Your task to perform on an android device: Go to CNN.com Image 0: 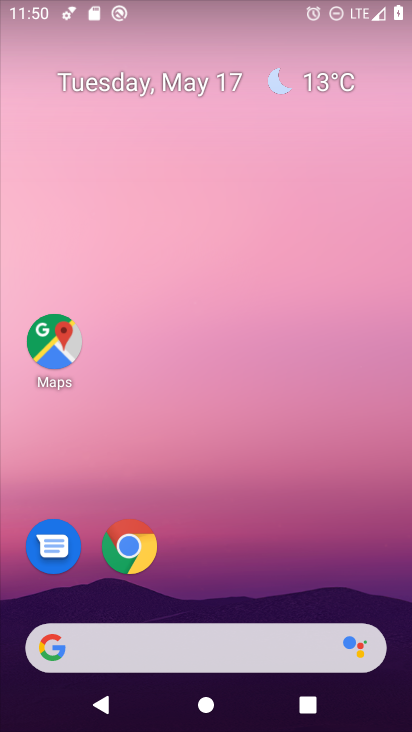
Step 0: click (138, 545)
Your task to perform on an android device: Go to CNN.com Image 1: 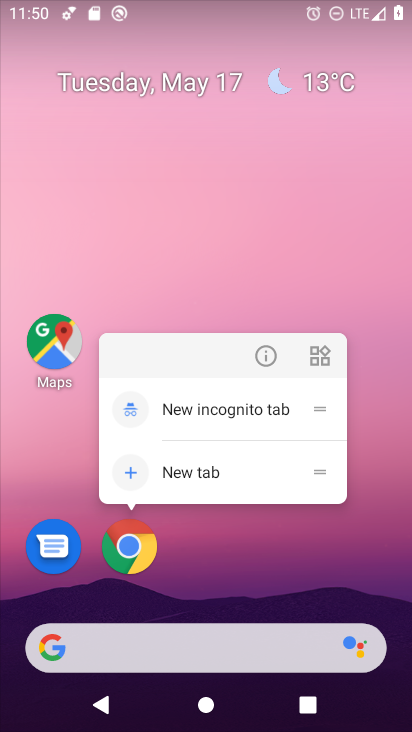
Step 1: click (133, 549)
Your task to perform on an android device: Go to CNN.com Image 2: 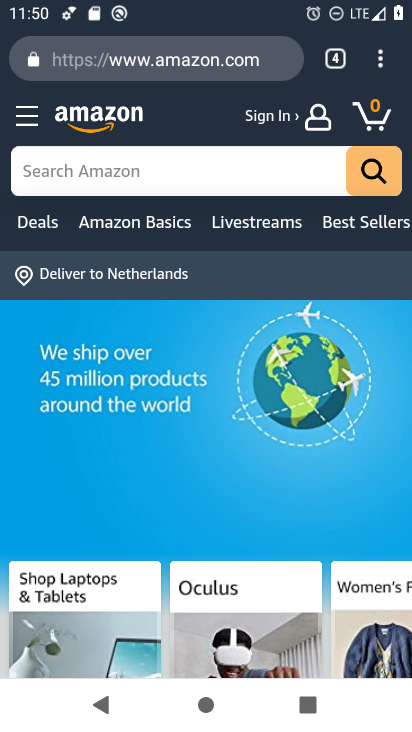
Step 2: click (112, 53)
Your task to perform on an android device: Go to CNN.com Image 3: 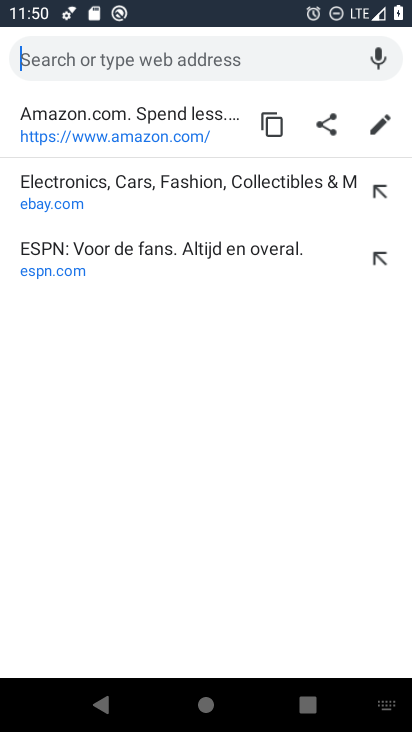
Step 3: type "cnn.com"
Your task to perform on an android device: Go to CNN.com Image 4: 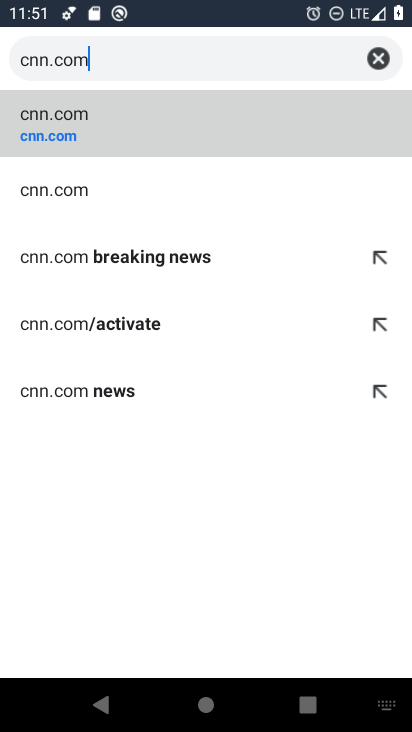
Step 4: click (36, 194)
Your task to perform on an android device: Go to CNN.com Image 5: 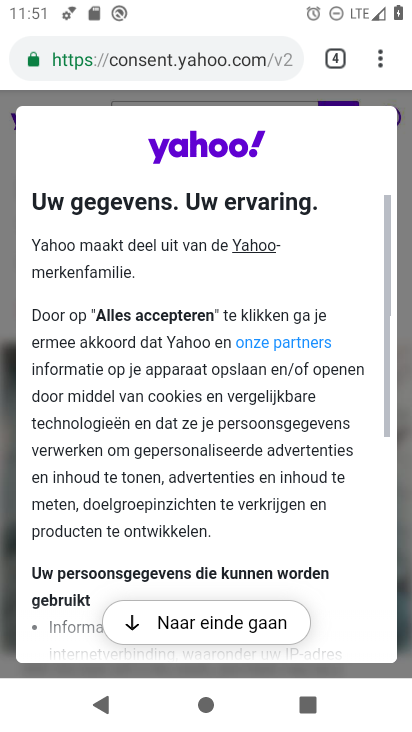
Step 5: press back button
Your task to perform on an android device: Go to CNN.com Image 6: 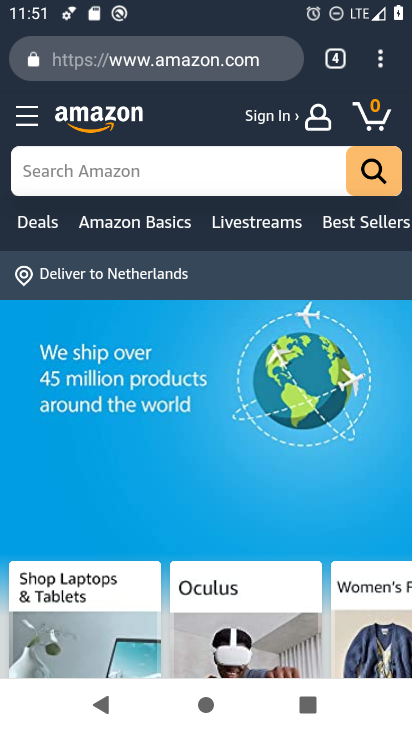
Step 6: click (175, 60)
Your task to perform on an android device: Go to CNN.com Image 7: 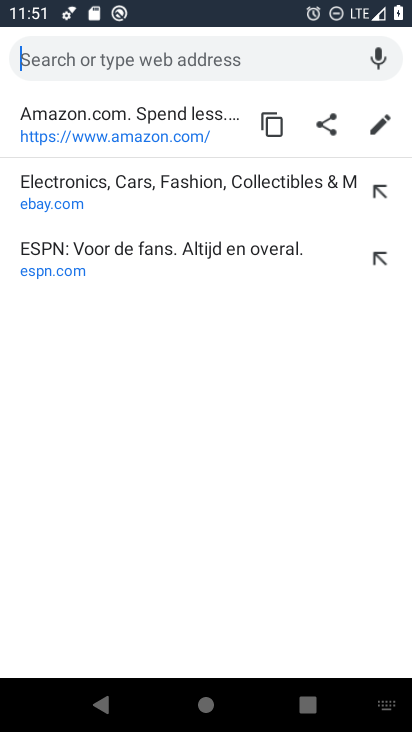
Step 7: type "cnn.com"
Your task to perform on an android device: Go to CNN.com Image 8: 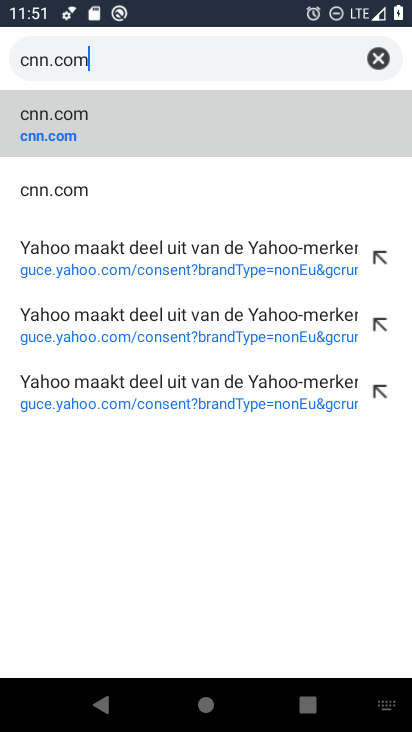
Step 8: click (44, 128)
Your task to perform on an android device: Go to CNN.com Image 9: 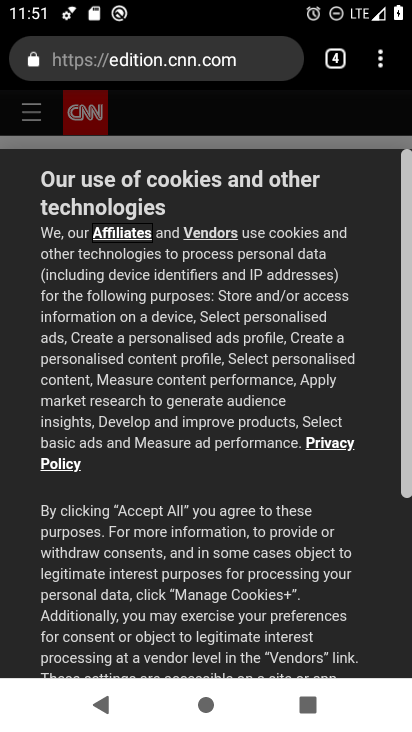
Step 9: task complete